Your task to perform on an android device: Find coffee shops on Maps Image 0: 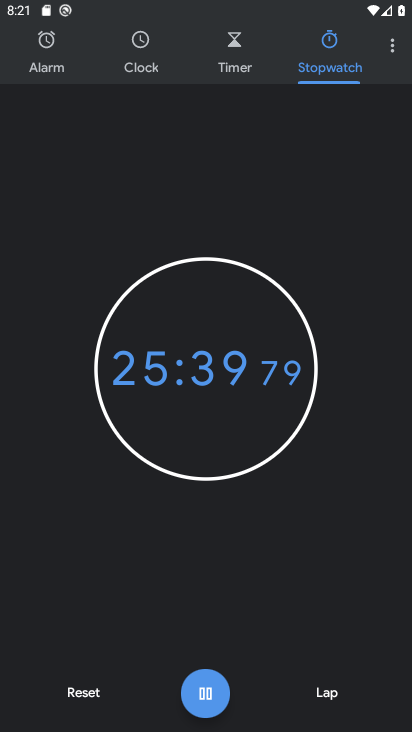
Step 0: press home button
Your task to perform on an android device: Find coffee shops on Maps Image 1: 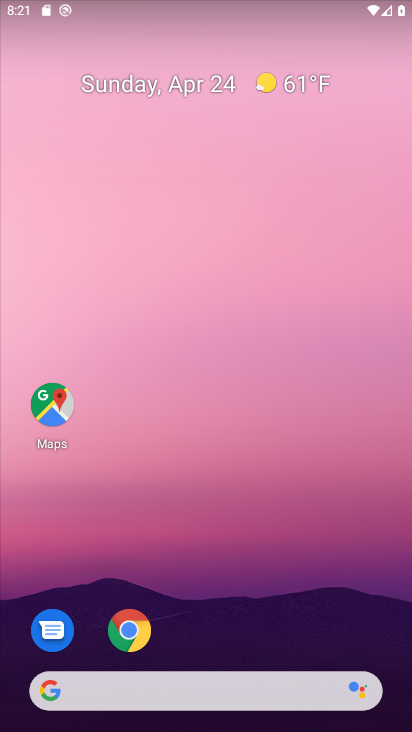
Step 1: drag from (358, 601) to (336, 124)
Your task to perform on an android device: Find coffee shops on Maps Image 2: 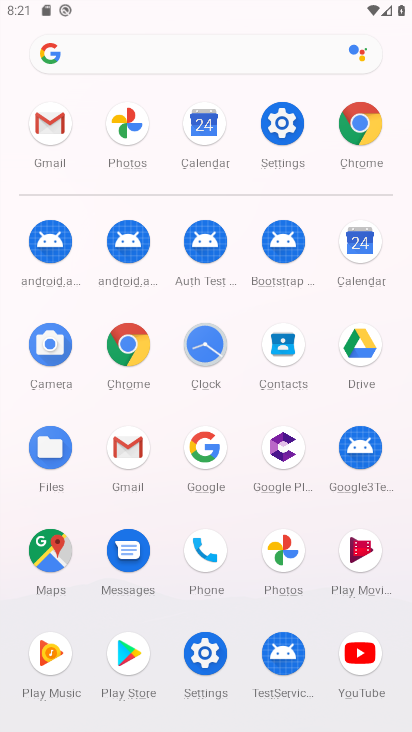
Step 2: click (51, 556)
Your task to perform on an android device: Find coffee shops on Maps Image 3: 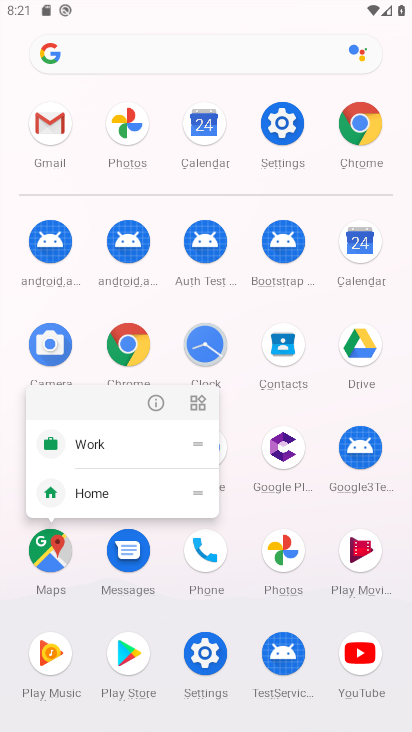
Step 3: click (44, 551)
Your task to perform on an android device: Find coffee shops on Maps Image 4: 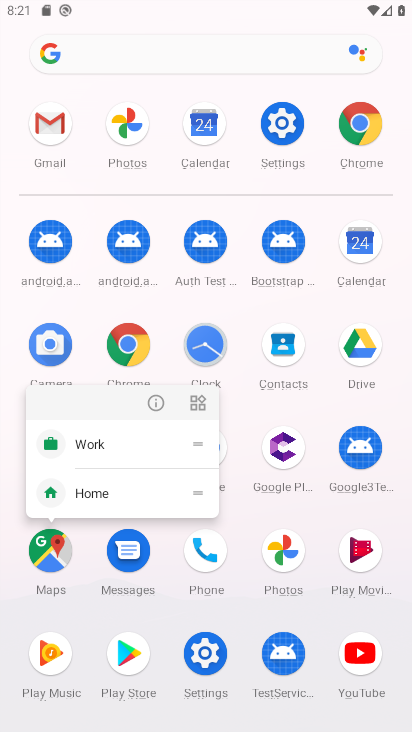
Step 4: click (61, 548)
Your task to perform on an android device: Find coffee shops on Maps Image 5: 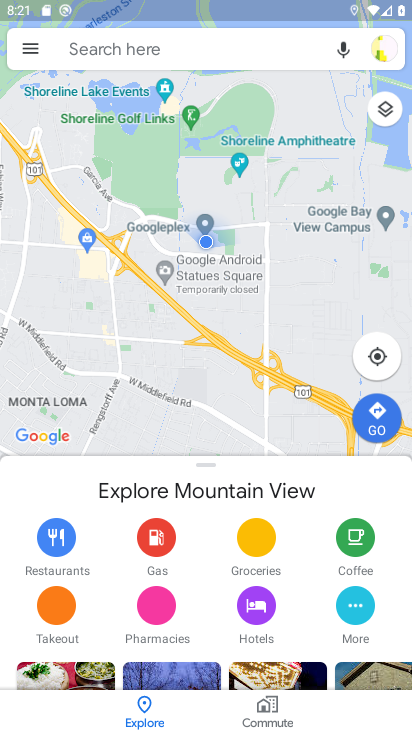
Step 5: click (210, 45)
Your task to perform on an android device: Find coffee shops on Maps Image 6: 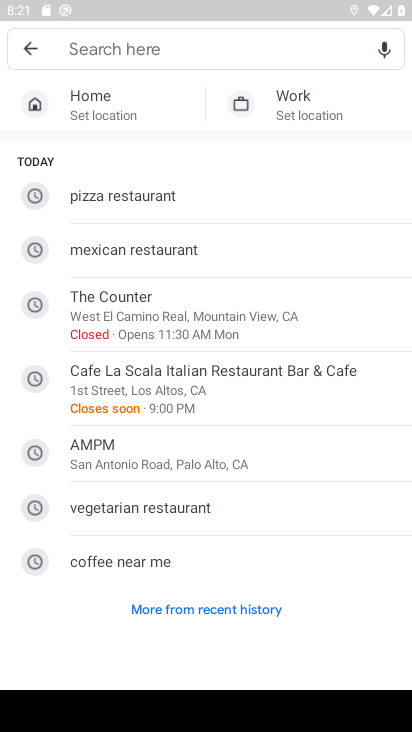
Step 6: type "coffee"
Your task to perform on an android device: Find coffee shops on Maps Image 7: 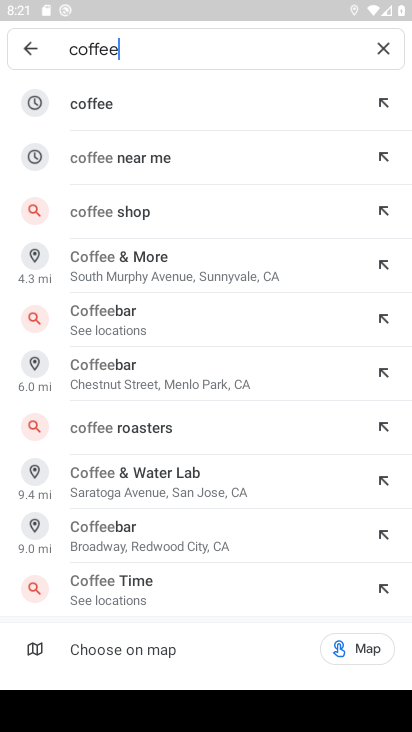
Step 7: click (225, 97)
Your task to perform on an android device: Find coffee shops on Maps Image 8: 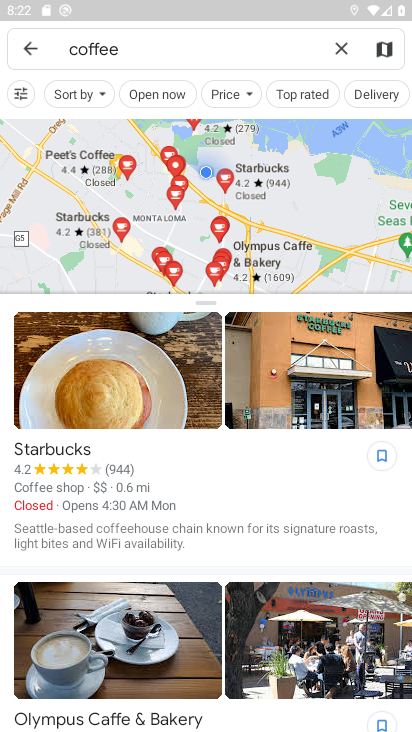
Step 8: task complete